Your task to perform on an android device: turn pop-ups on in chrome Image 0: 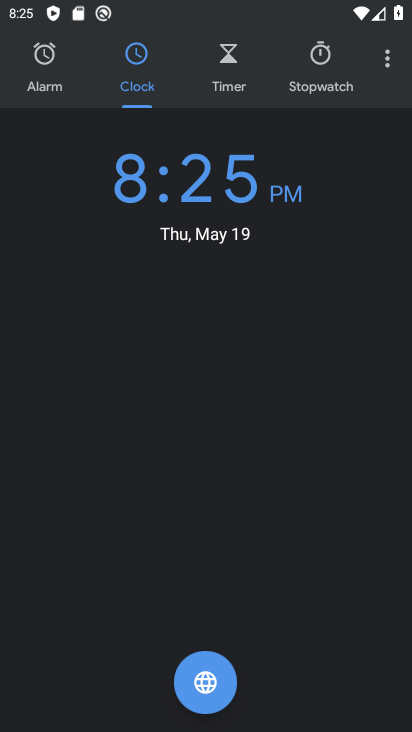
Step 0: press home button
Your task to perform on an android device: turn pop-ups on in chrome Image 1: 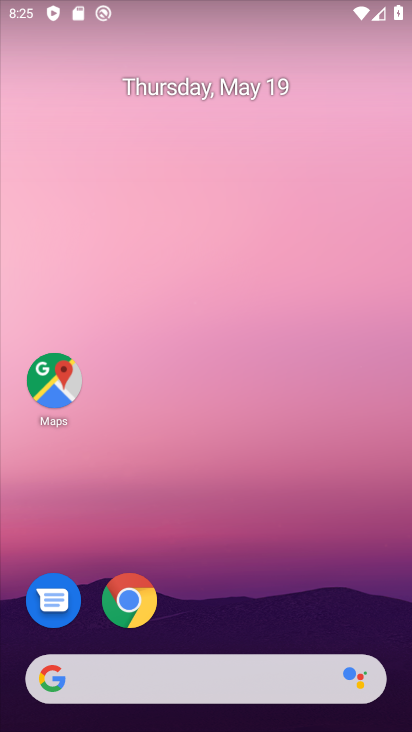
Step 1: drag from (239, 579) to (224, 114)
Your task to perform on an android device: turn pop-ups on in chrome Image 2: 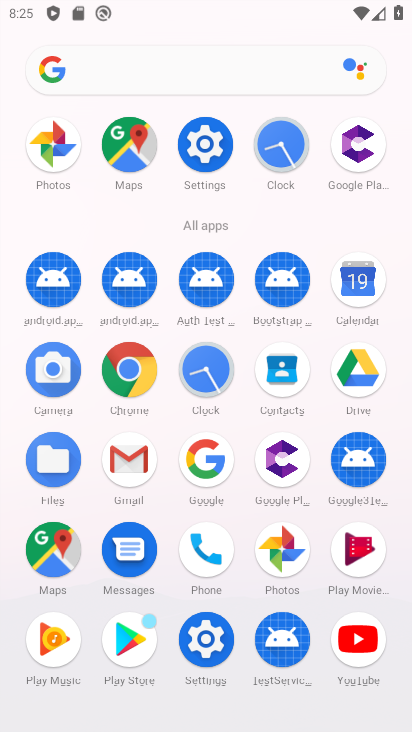
Step 2: click (131, 377)
Your task to perform on an android device: turn pop-ups on in chrome Image 3: 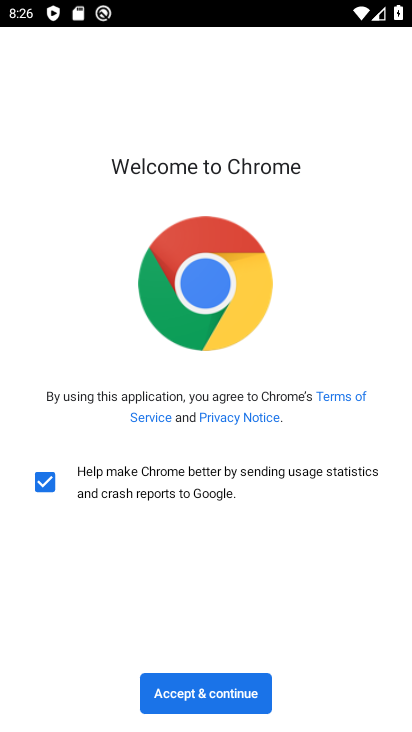
Step 3: click (222, 708)
Your task to perform on an android device: turn pop-ups on in chrome Image 4: 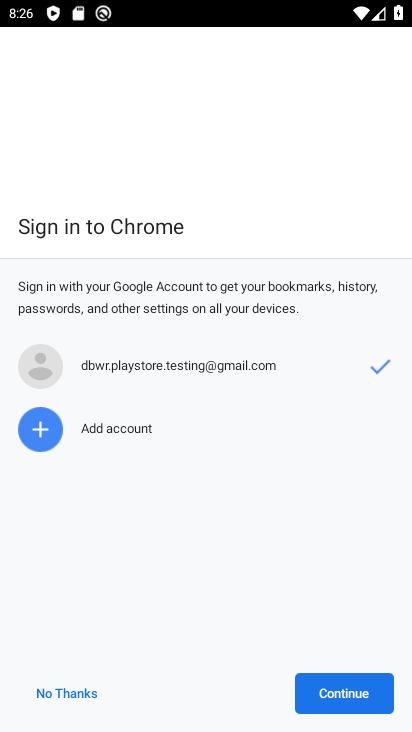
Step 4: click (371, 680)
Your task to perform on an android device: turn pop-ups on in chrome Image 5: 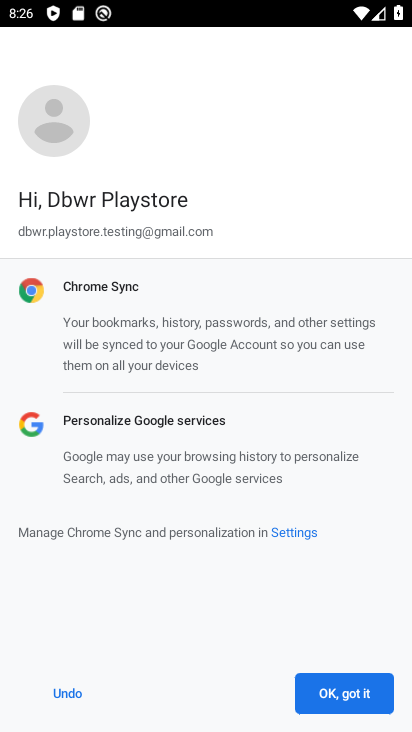
Step 5: click (343, 697)
Your task to perform on an android device: turn pop-ups on in chrome Image 6: 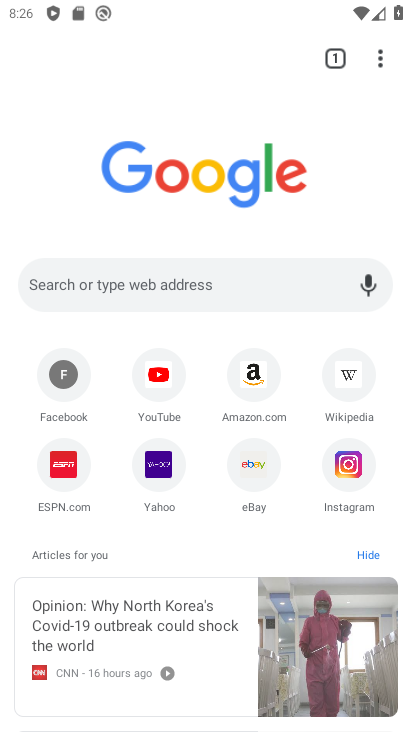
Step 6: drag from (388, 51) to (168, 491)
Your task to perform on an android device: turn pop-ups on in chrome Image 7: 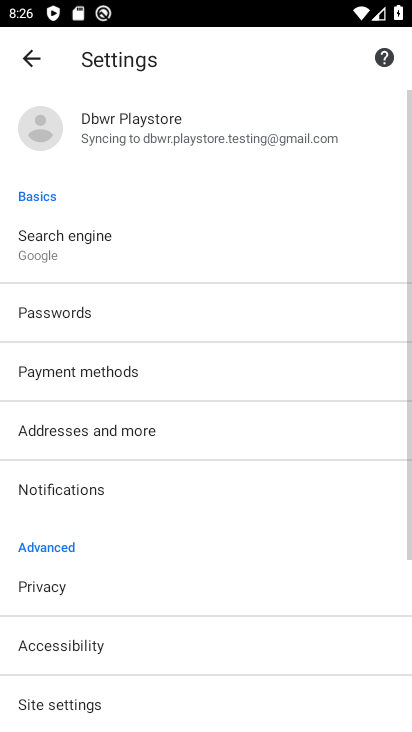
Step 7: drag from (186, 606) to (250, 114)
Your task to perform on an android device: turn pop-ups on in chrome Image 8: 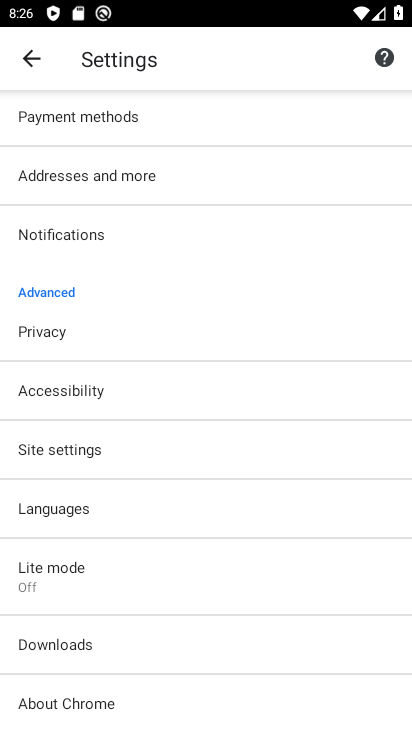
Step 8: click (74, 573)
Your task to perform on an android device: turn pop-ups on in chrome Image 9: 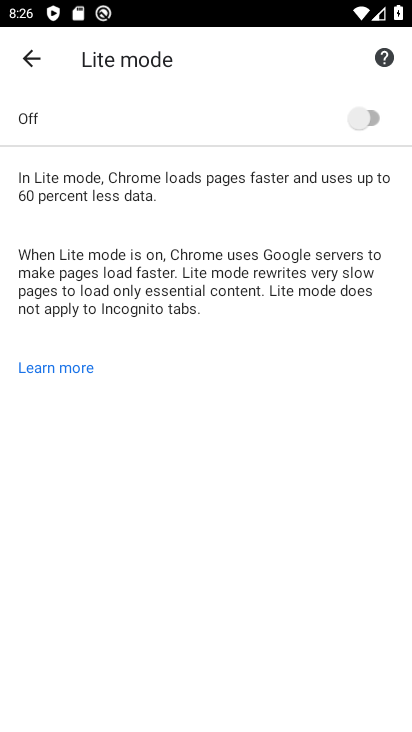
Step 9: click (31, 65)
Your task to perform on an android device: turn pop-ups on in chrome Image 10: 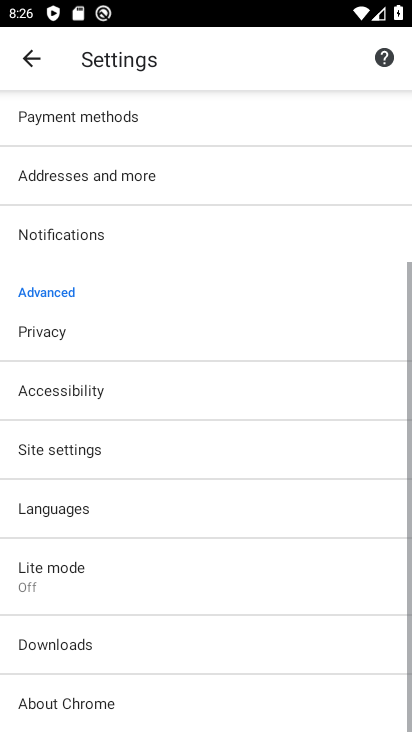
Step 10: click (106, 455)
Your task to perform on an android device: turn pop-ups on in chrome Image 11: 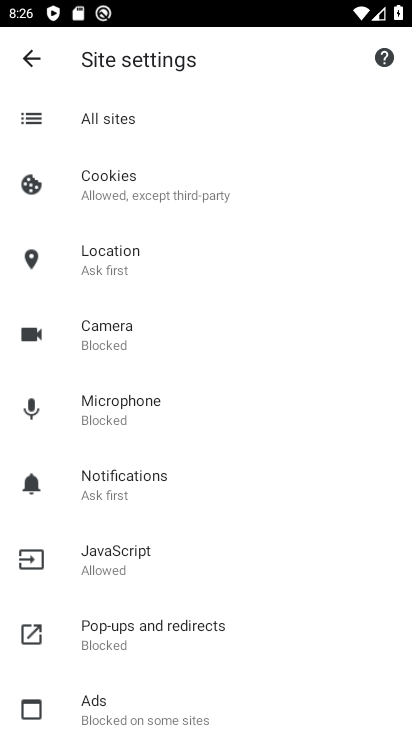
Step 11: click (181, 619)
Your task to perform on an android device: turn pop-ups on in chrome Image 12: 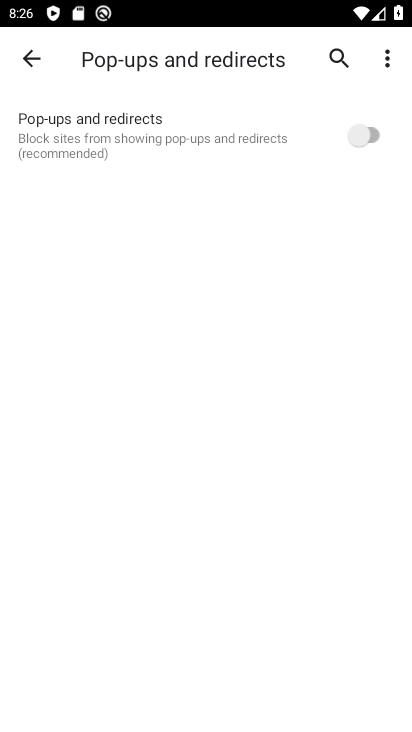
Step 12: click (362, 139)
Your task to perform on an android device: turn pop-ups on in chrome Image 13: 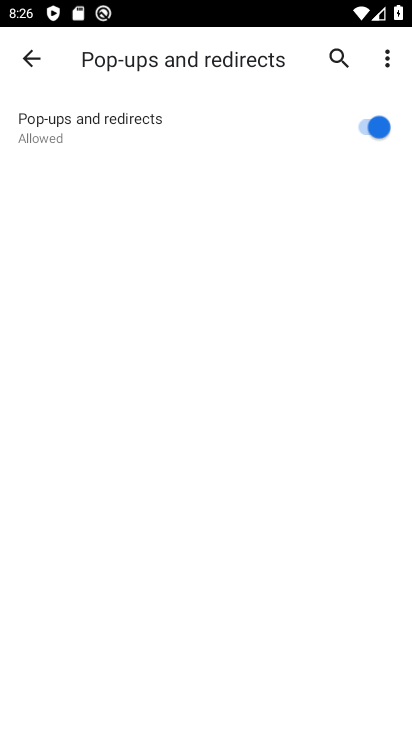
Step 13: task complete